Your task to perform on an android device: Do I have any events today? Image 0: 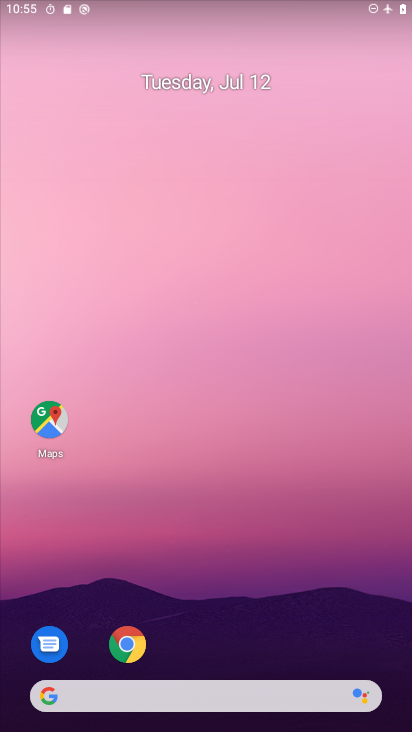
Step 0: drag from (191, 651) to (221, 324)
Your task to perform on an android device: Do I have any events today? Image 1: 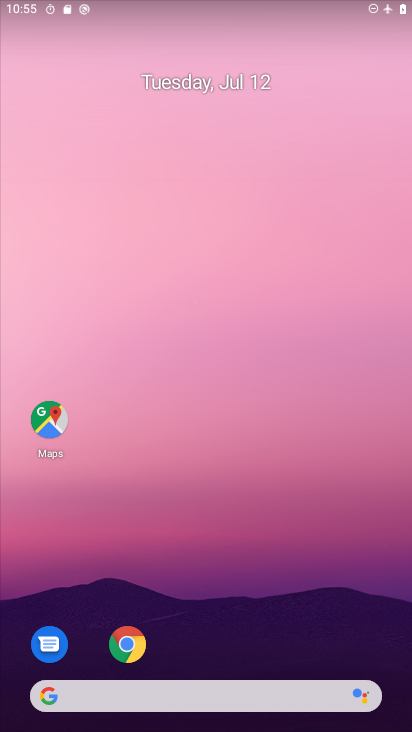
Step 1: drag from (200, 618) to (219, 183)
Your task to perform on an android device: Do I have any events today? Image 2: 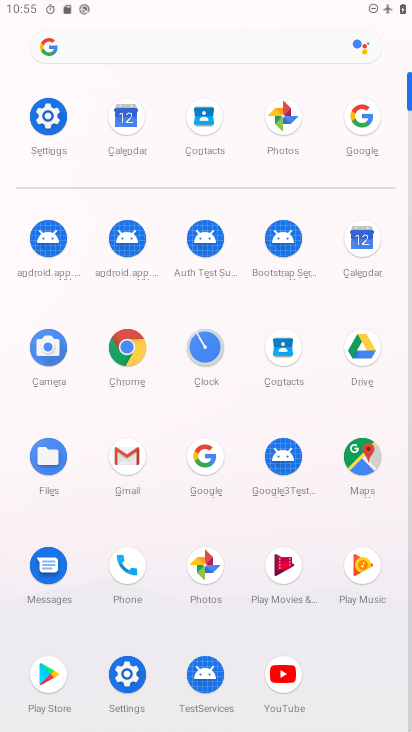
Step 2: click (128, 118)
Your task to perform on an android device: Do I have any events today? Image 3: 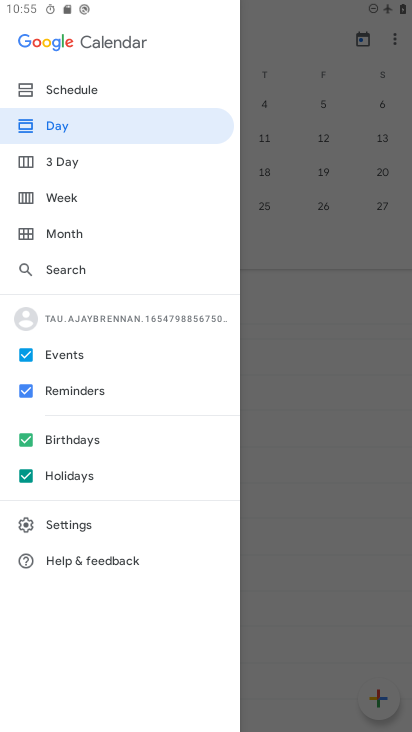
Step 3: click (88, 81)
Your task to perform on an android device: Do I have any events today? Image 4: 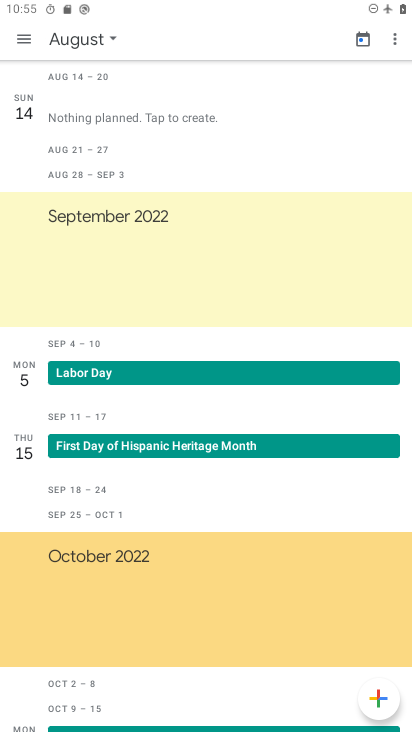
Step 4: click (102, 40)
Your task to perform on an android device: Do I have any events today? Image 5: 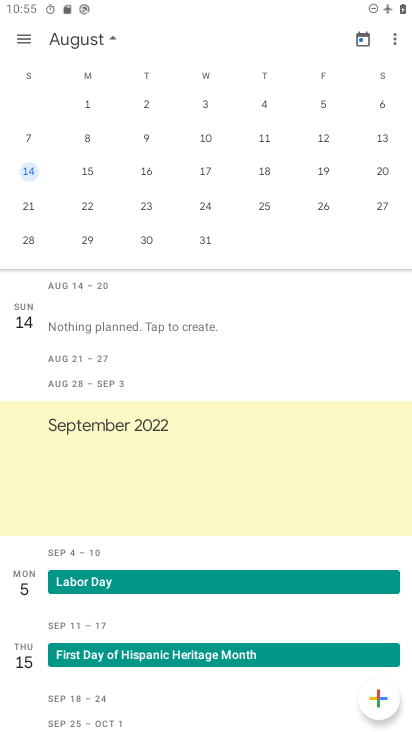
Step 5: task complete